Your task to perform on an android device: turn on improve location accuracy Image 0: 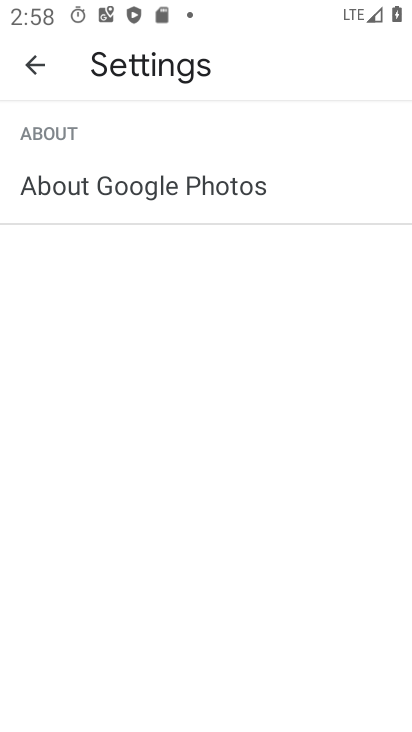
Step 0: press back button
Your task to perform on an android device: turn on improve location accuracy Image 1: 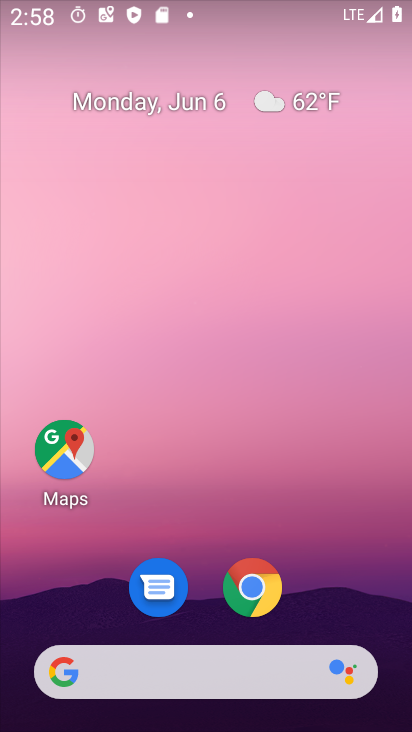
Step 1: drag from (370, 586) to (265, 45)
Your task to perform on an android device: turn on improve location accuracy Image 2: 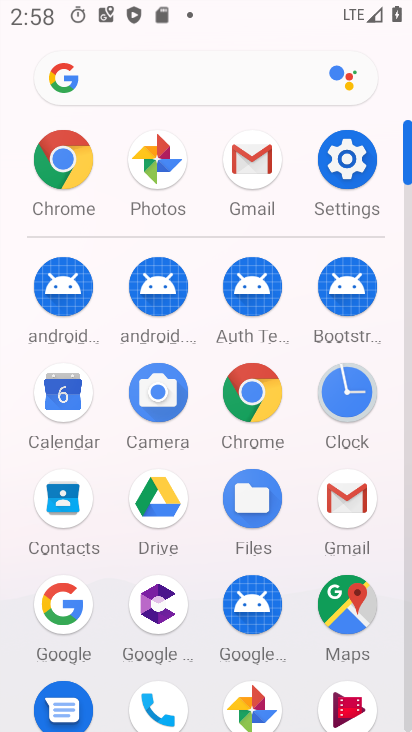
Step 2: drag from (11, 586) to (17, 251)
Your task to perform on an android device: turn on improve location accuracy Image 3: 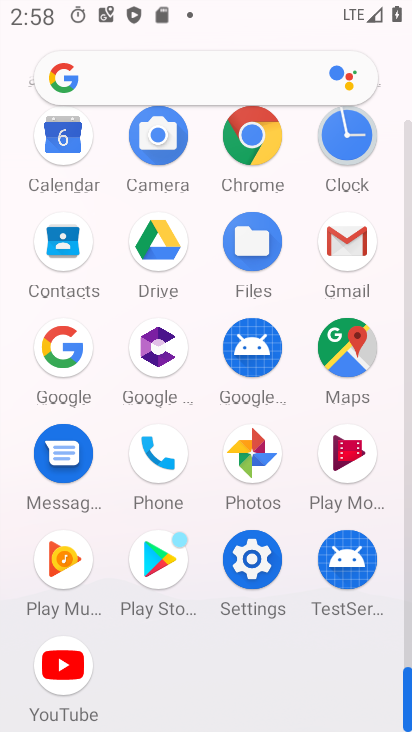
Step 3: click (251, 557)
Your task to perform on an android device: turn on improve location accuracy Image 4: 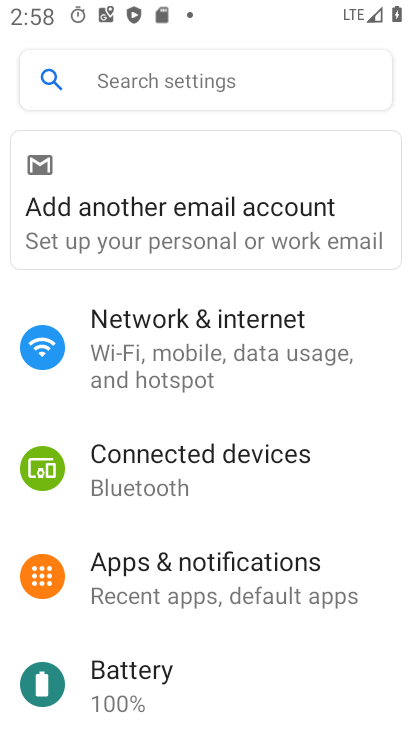
Step 4: drag from (327, 629) to (336, 188)
Your task to perform on an android device: turn on improve location accuracy Image 5: 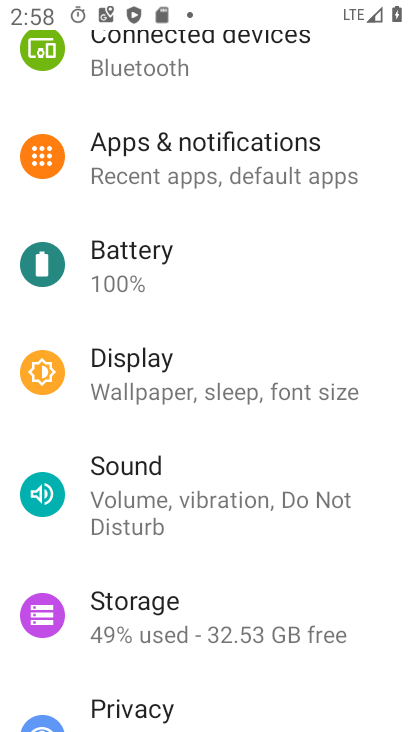
Step 5: drag from (319, 530) to (353, 194)
Your task to perform on an android device: turn on improve location accuracy Image 6: 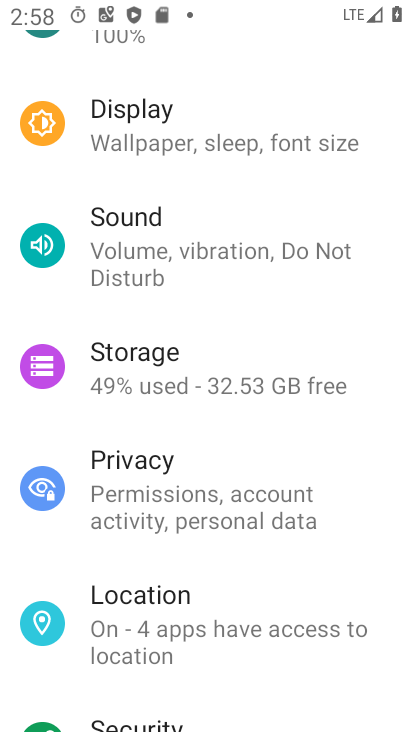
Step 6: click (202, 623)
Your task to perform on an android device: turn on improve location accuracy Image 7: 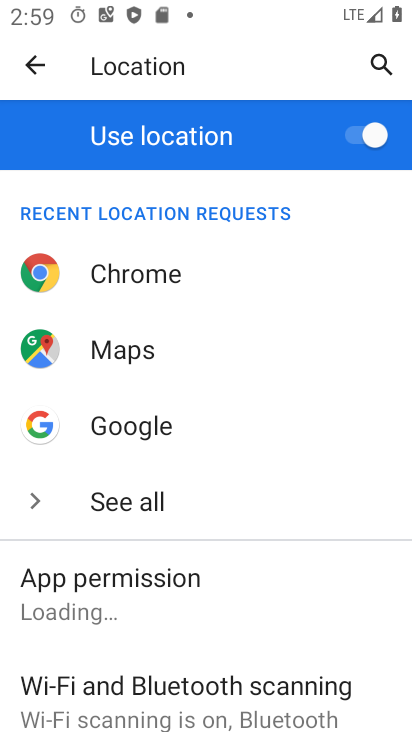
Step 7: drag from (273, 600) to (297, 221)
Your task to perform on an android device: turn on improve location accuracy Image 8: 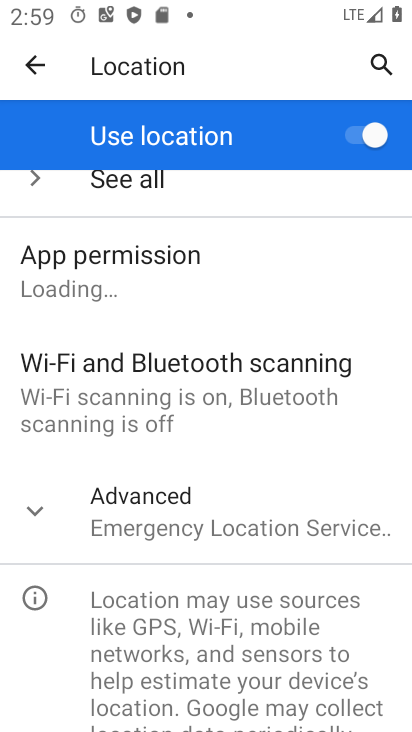
Step 8: click (65, 502)
Your task to perform on an android device: turn on improve location accuracy Image 9: 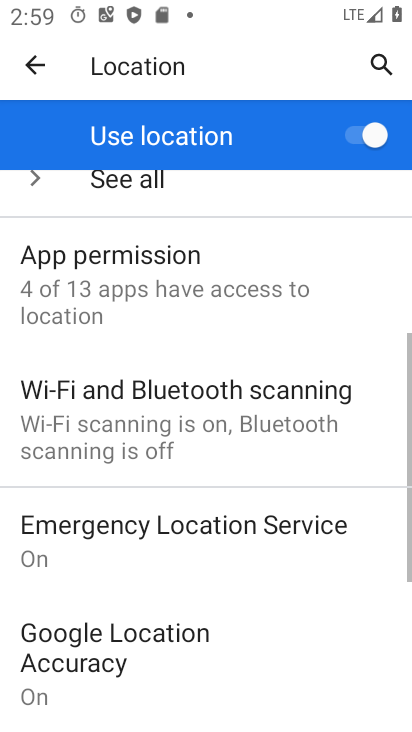
Step 9: click (175, 635)
Your task to perform on an android device: turn on improve location accuracy Image 10: 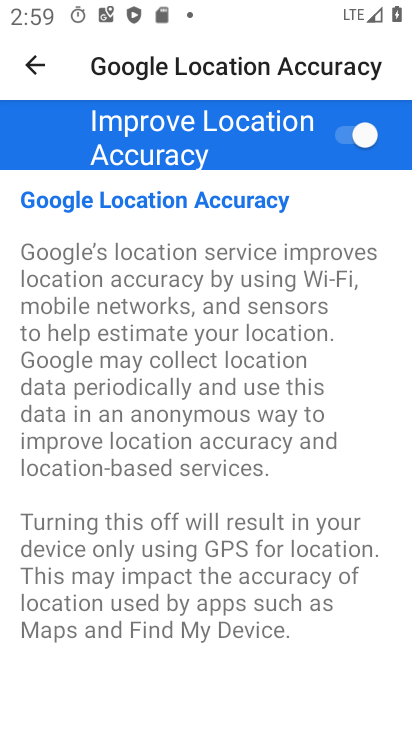
Step 10: task complete